Your task to perform on an android device: Search for razer kraken on walmart, select the first entry, add it to the cart, then select checkout. Image 0: 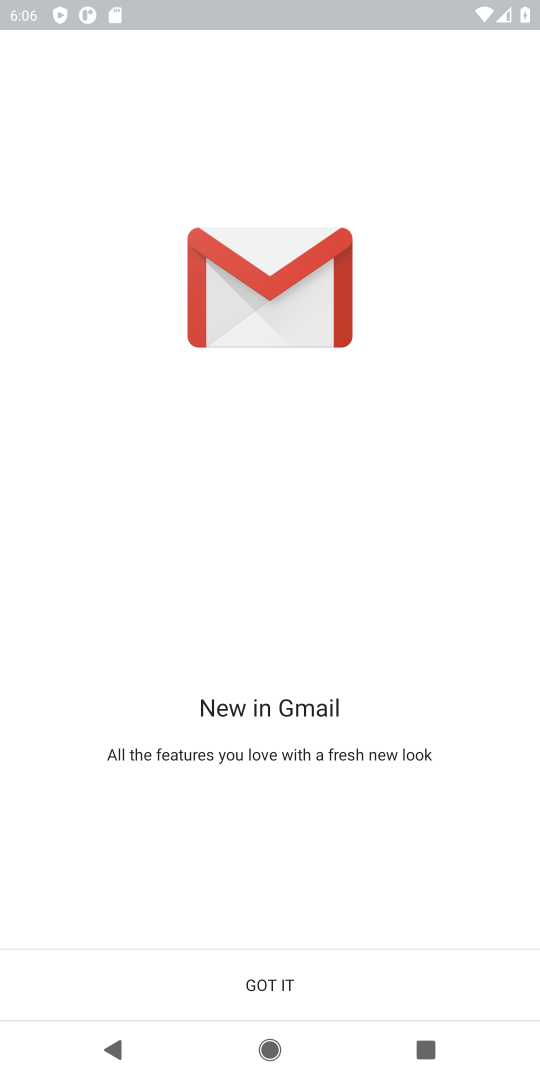
Step 0: press home button
Your task to perform on an android device: Search for razer kraken on walmart, select the first entry, add it to the cart, then select checkout. Image 1: 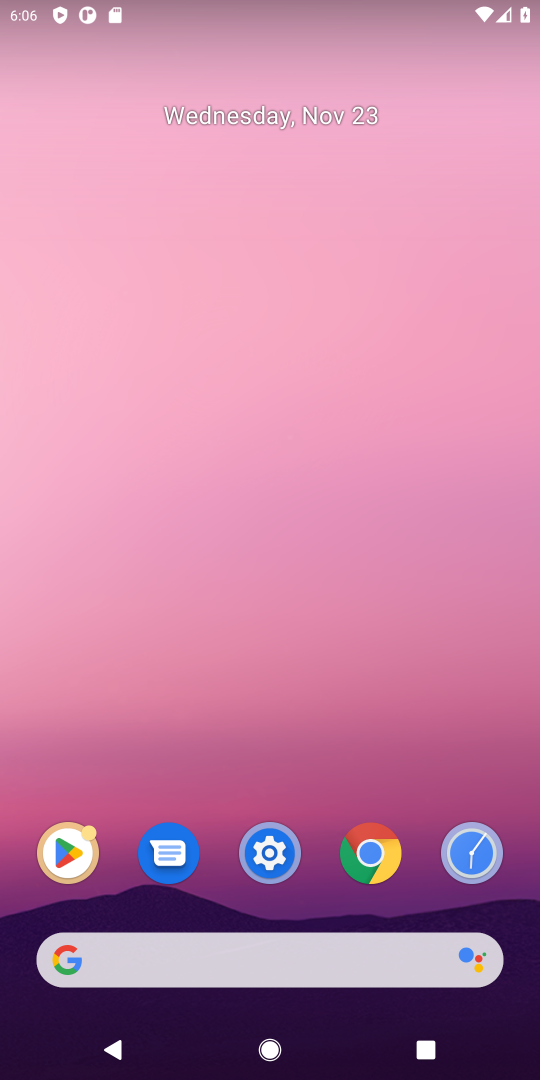
Step 1: click (361, 856)
Your task to perform on an android device: Search for razer kraken on walmart, select the first entry, add it to the cart, then select checkout. Image 2: 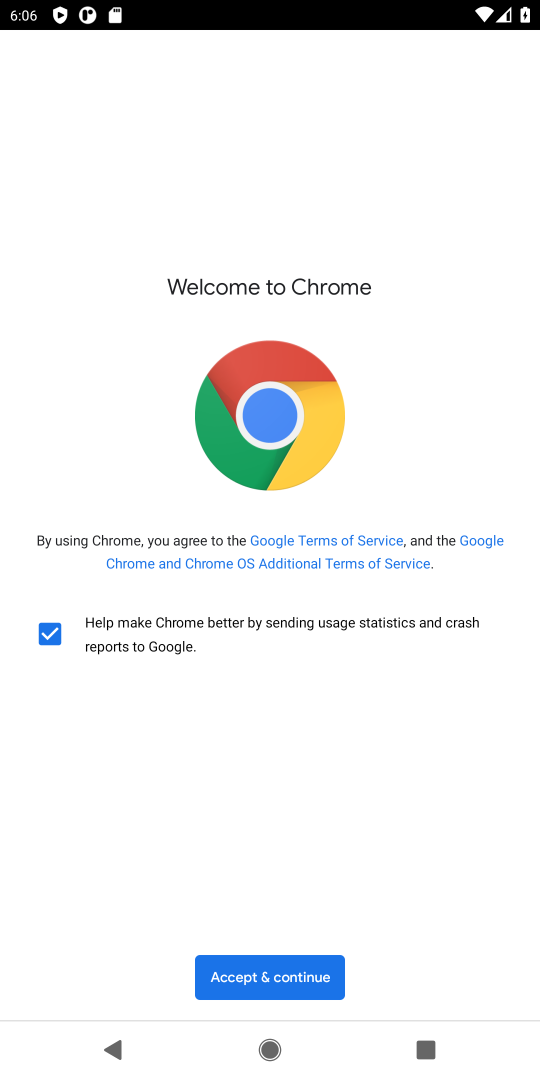
Step 2: click (265, 976)
Your task to perform on an android device: Search for razer kraken on walmart, select the first entry, add it to the cart, then select checkout. Image 3: 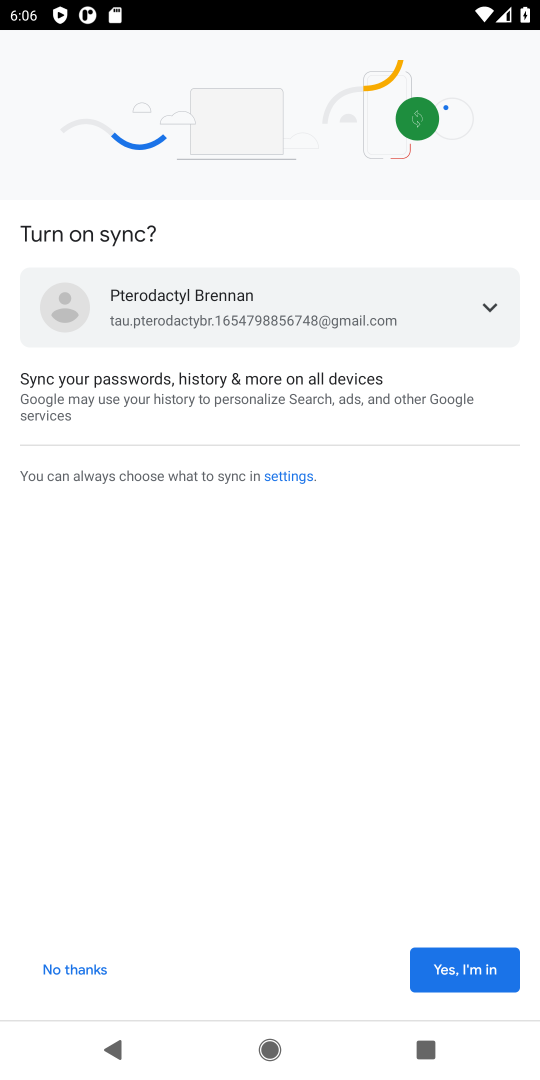
Step 3: click (53, 966)
Your task to perform on an android device: Search for razer kraken on walmart, select the first entry, add it to the cart, then select checkout. Image 4: 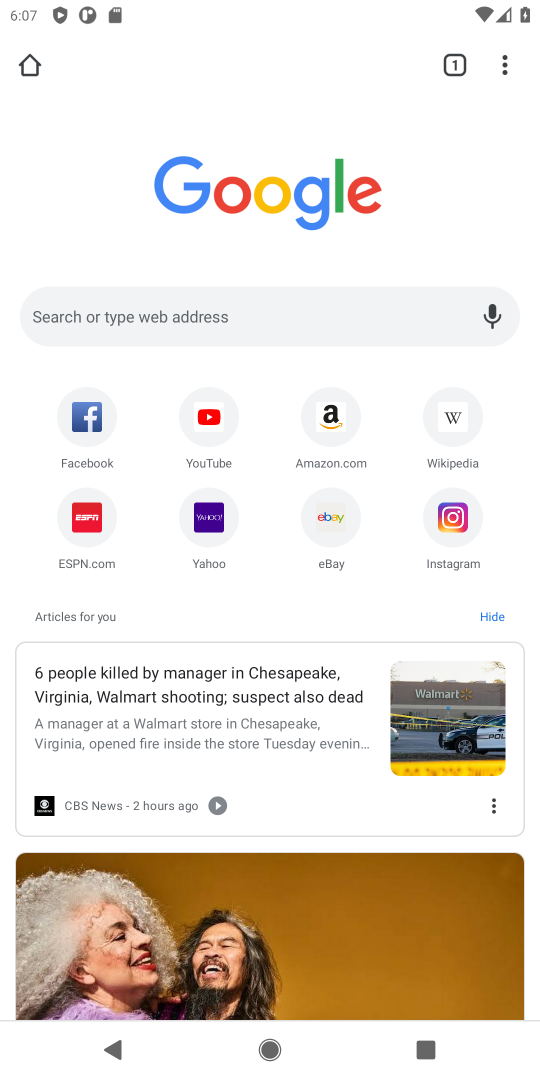
Step 4: click (131, 322)
Your task to perform on an android device: Search for razer kraken on walmart, select the first entry, add it to the cart, then select checkout. Image 5: 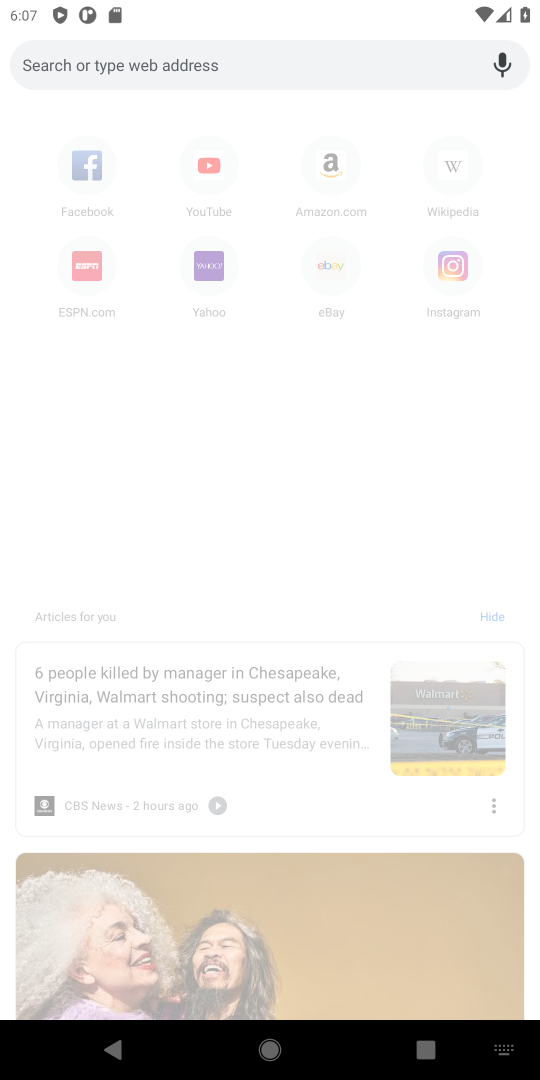
Step 5: type "walmart.com"
Your task to perform on an android device: Search for razer kraken on walmart, select the first entry, add it to the cart, then select checkout. Image 6: 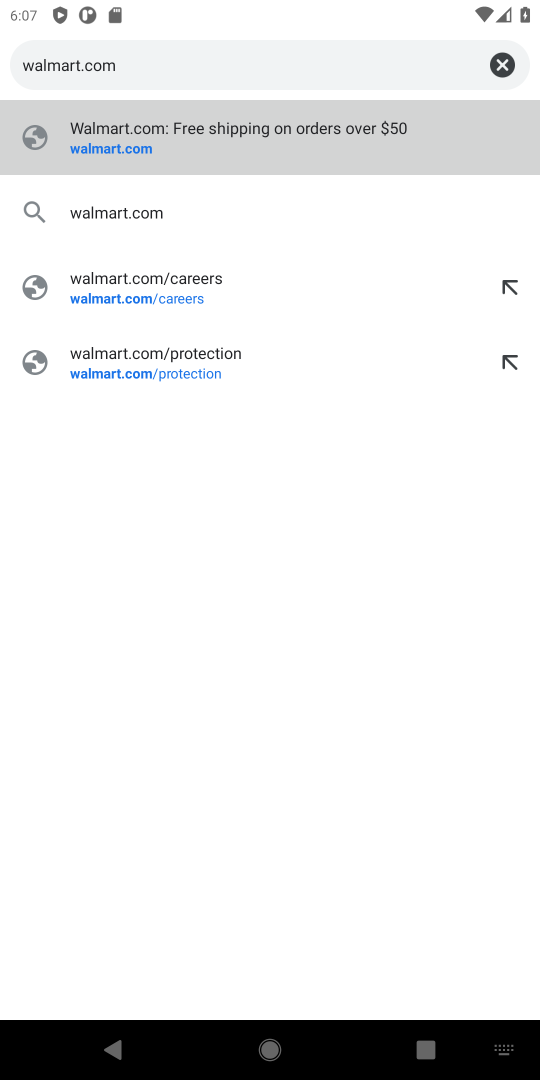
Step 6: click (87, 153)
Your task to perform on an android device: Search for razer kraken on walmart, select the first entry, add it to the cart, then select checkout. Image 7: 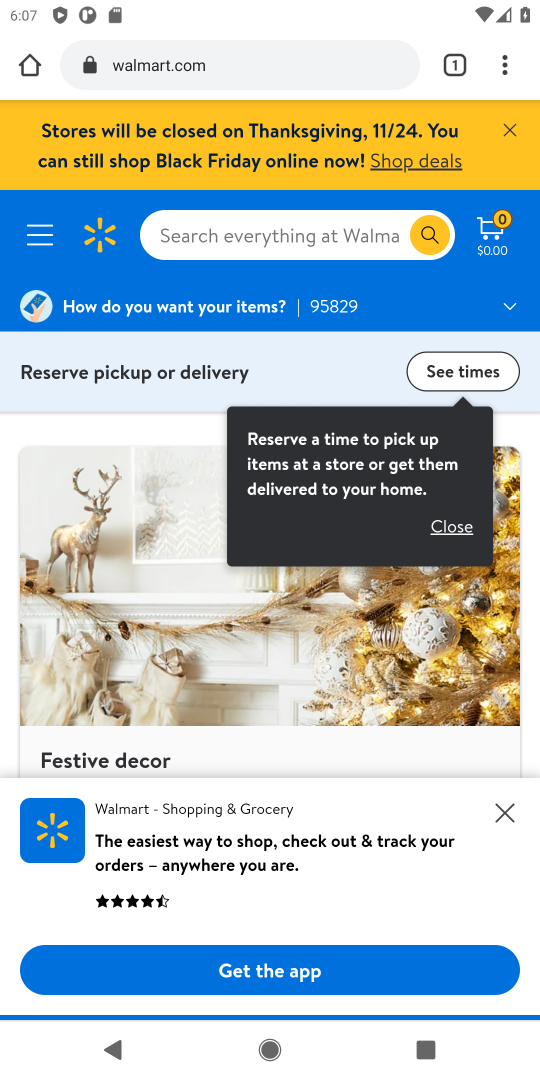
Step 7: click (268, 239)
Your task to perform on an android device: Search for razer kraken on walmart, select the first entry, add it to the cart, then select checkout. Image 8: 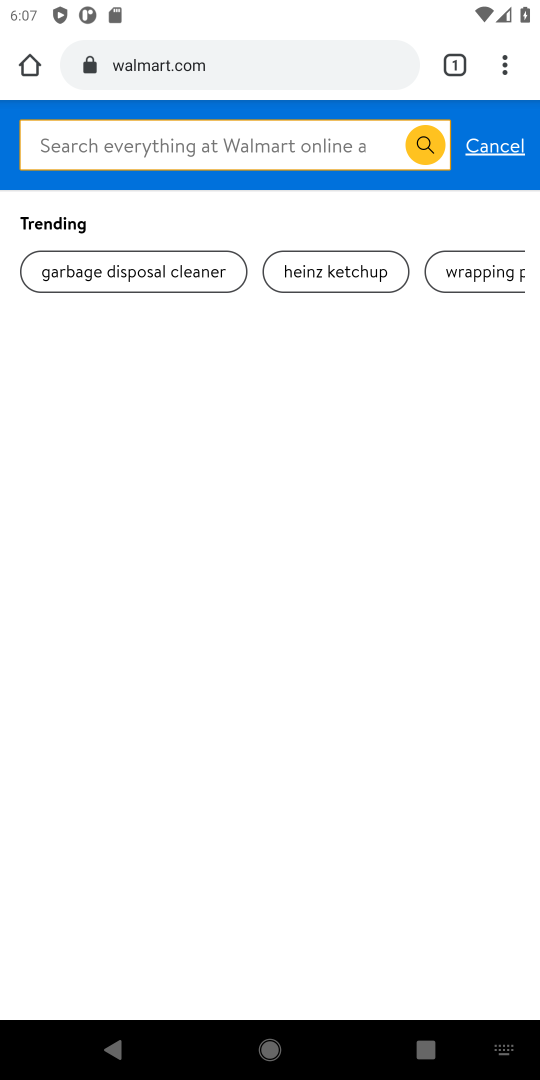
Step 8: type "razer kraken"
Your task to perform on an android device: Search for razer kraken on walmart, select the first entry, add it to the cart, then select checkout. Image 9: 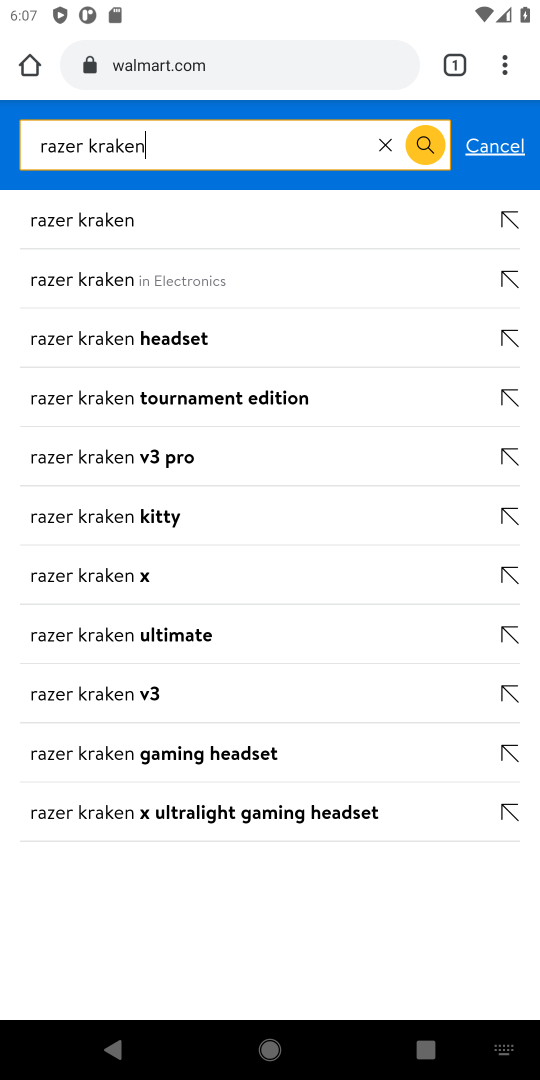
Step 9: click (41, 226)
Your task to perform on an android device: Search for razer kraken on walmart, select the first entry, add it to the cart, then select checkout. Image 10: 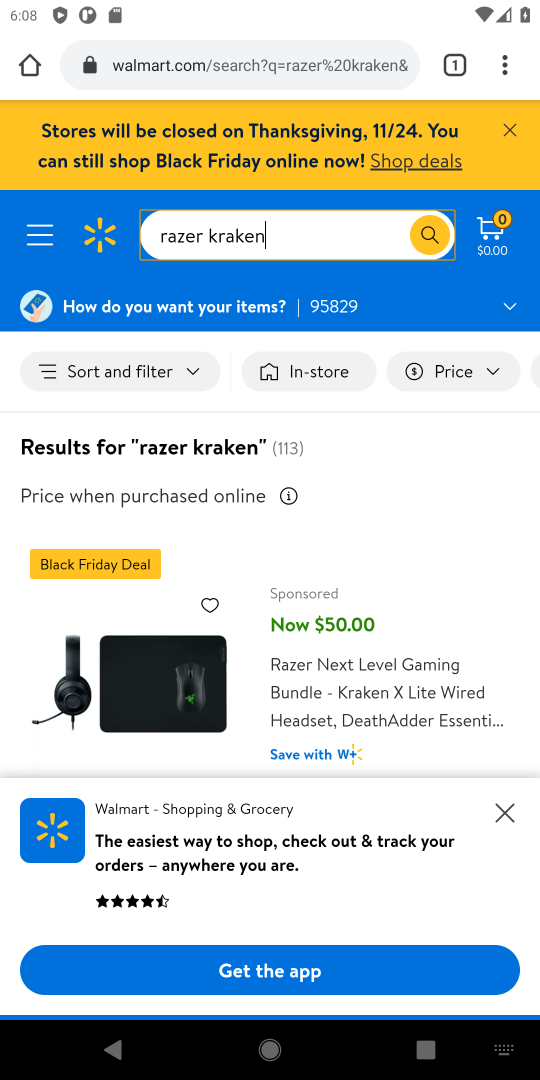
Step 10: drag from (248, 690) to (225, 434)
Your task to perform on an android device: Search for razer kraken on walmart, select the first entry, add it to the cart, then select checkout. Image 11: 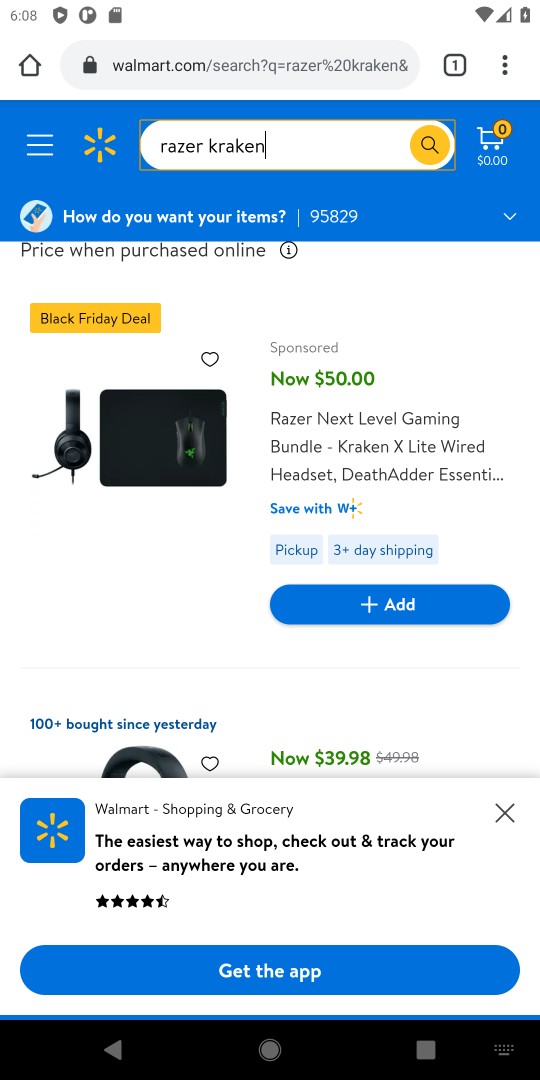
Step 11: click (383, 602)
Your task to perform on an android device: Search for razer kraken on walmart, select the first entry, add it to the cart, then select checkout. Image 12: 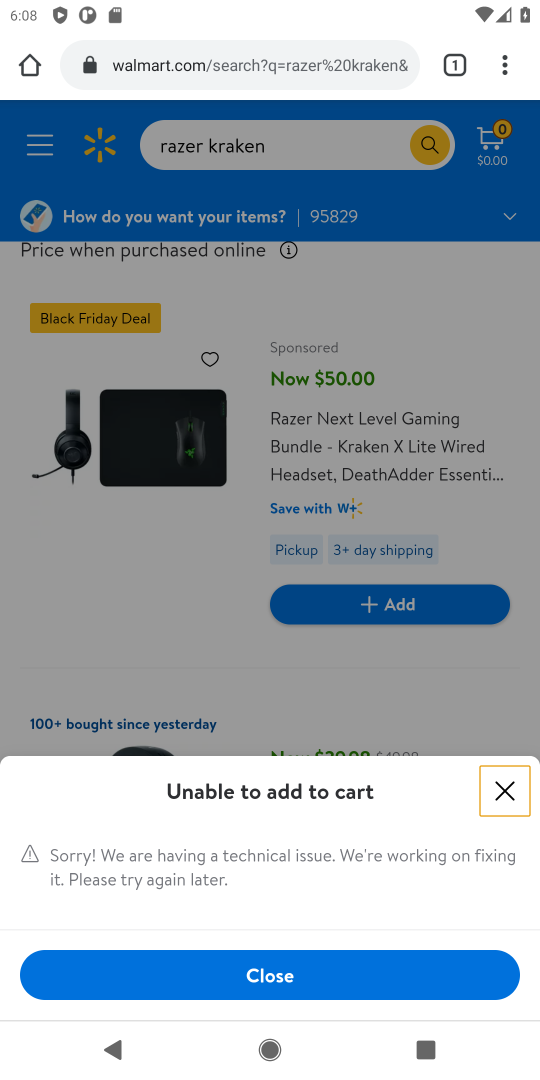
Step 12: click (508, 794)
Your task to perform on an android device: Search for razer kraken on walmart, select the first entry, add it to the cart, then select checkout. Image 13: 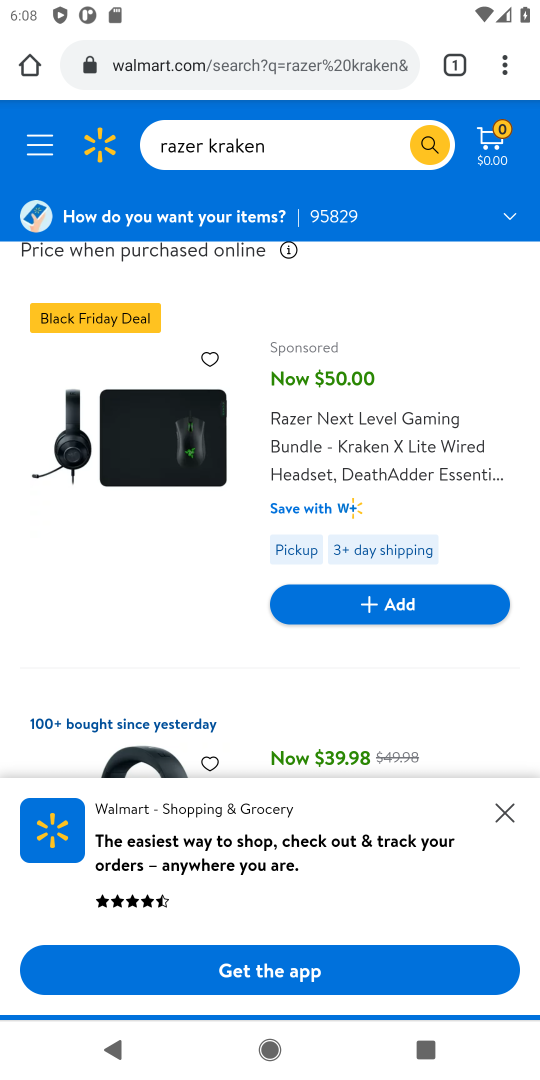
Step 13: drag from (170, 680) to (134, 523)
Your task to perform on an android device: Search for razer kraken on walmart, select the first entry, add it to the cart, then select checkout. Image 14: 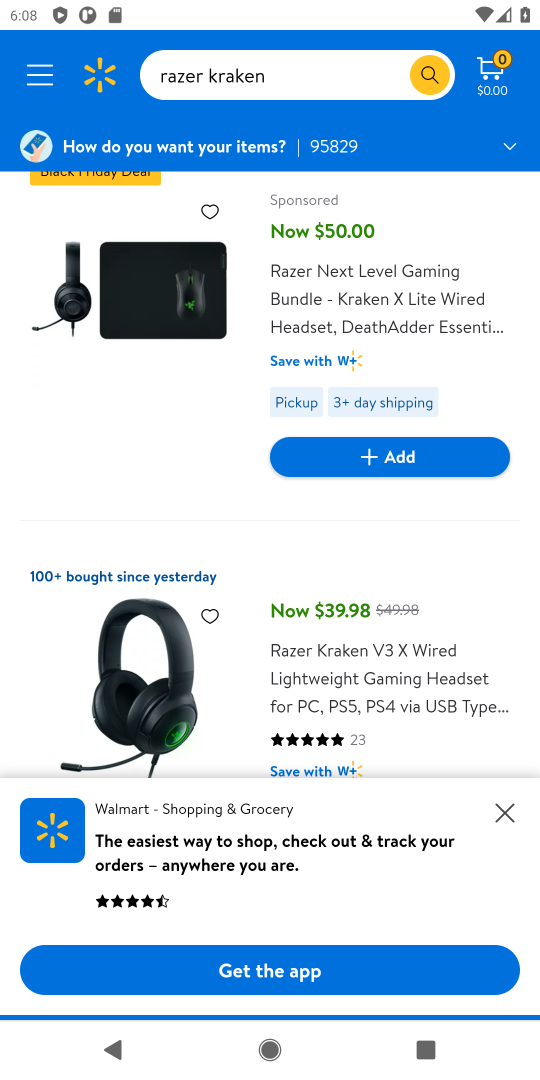
Step 14: click (113, 329)
Your task to perform on an android device: Search for razer kraken on walmart, select the first entry, add it to the cart, then select checkout. Image 15: 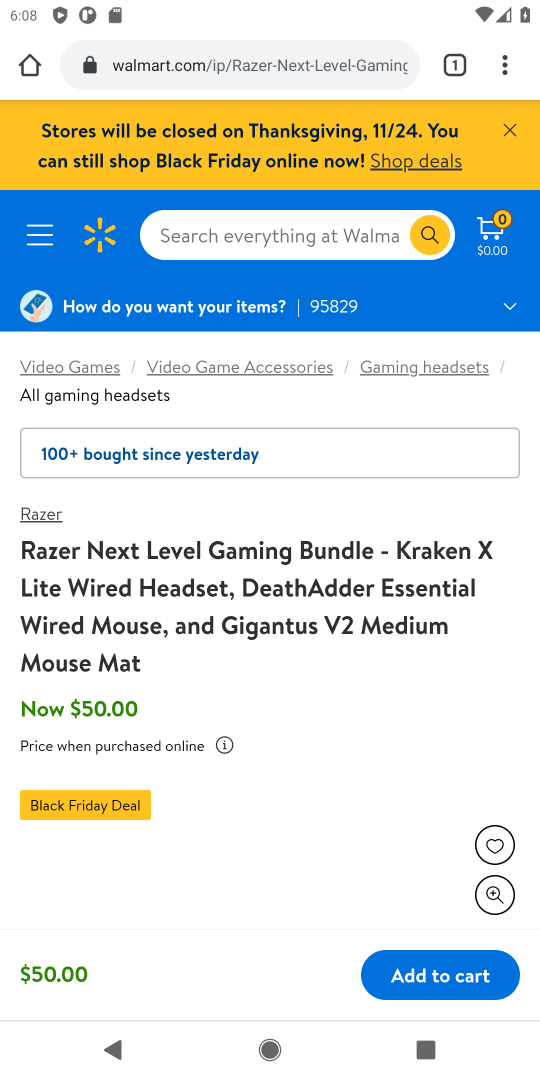
Step 15: click (452, 980)
Your task to perform on an android device: Search for razer kraken on walmart, select the first entry, add it to the cart, then select checkout. Image 16: 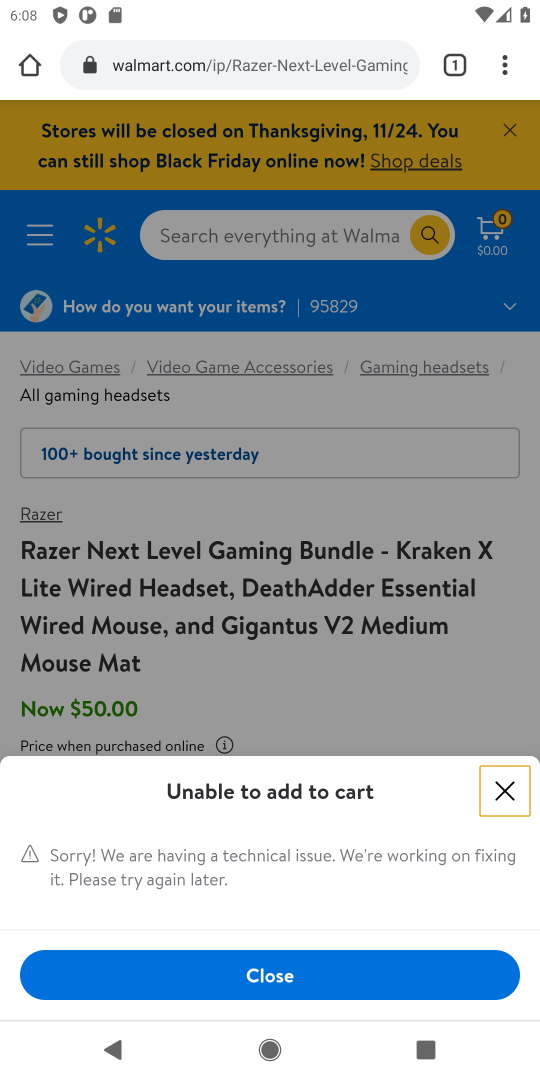
Step 16: task complete